Your task to perform on an android device: Add "beats solo 3" to the cart on target, then select checkout. Image 0: 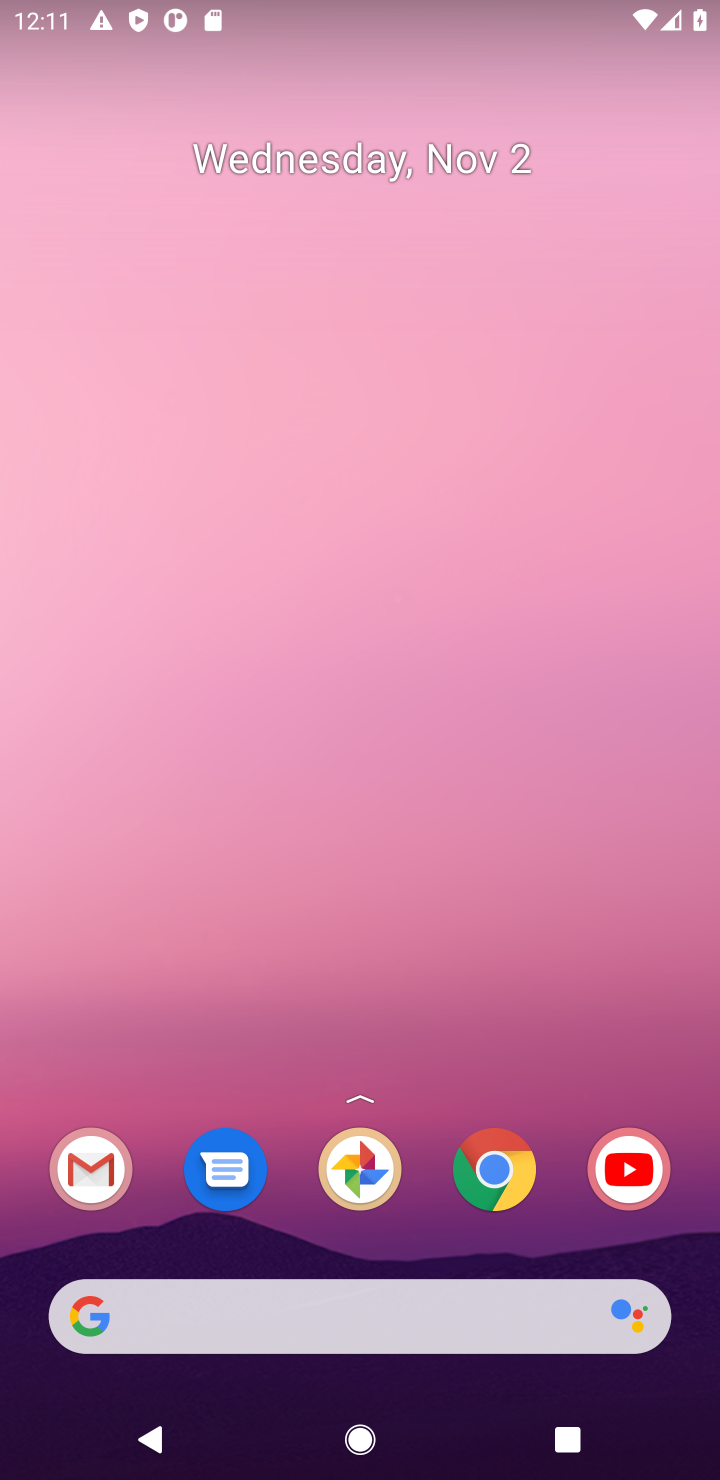
Step 0: click (503, 1166)
Your task to perform on an android device: Add "beats solo 3" to the cart on target, then select checkout. Image 1: 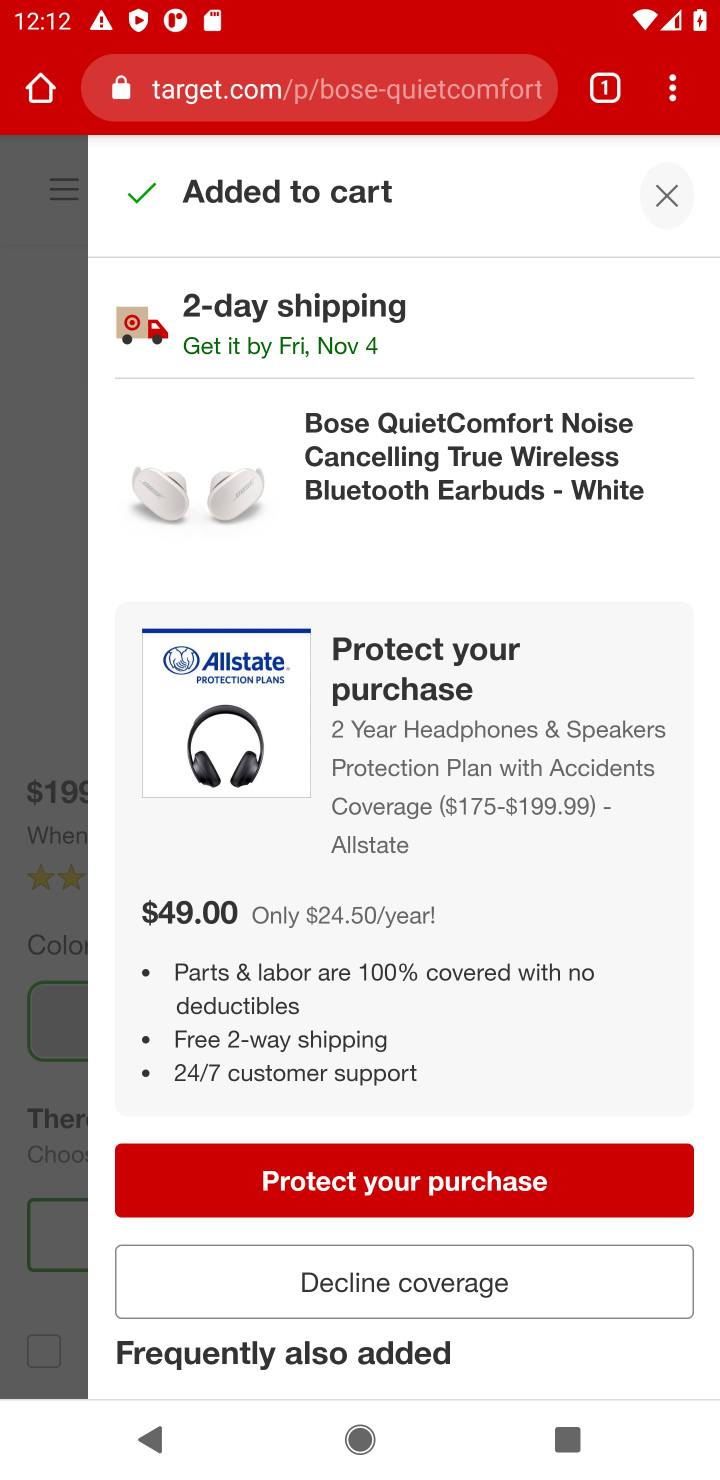
Step 1: drag from (675, 93) to (342, 200)
Your task to perform on an android device: Add "beats solo 3" to the cart on target, then select checkout. Image 2: 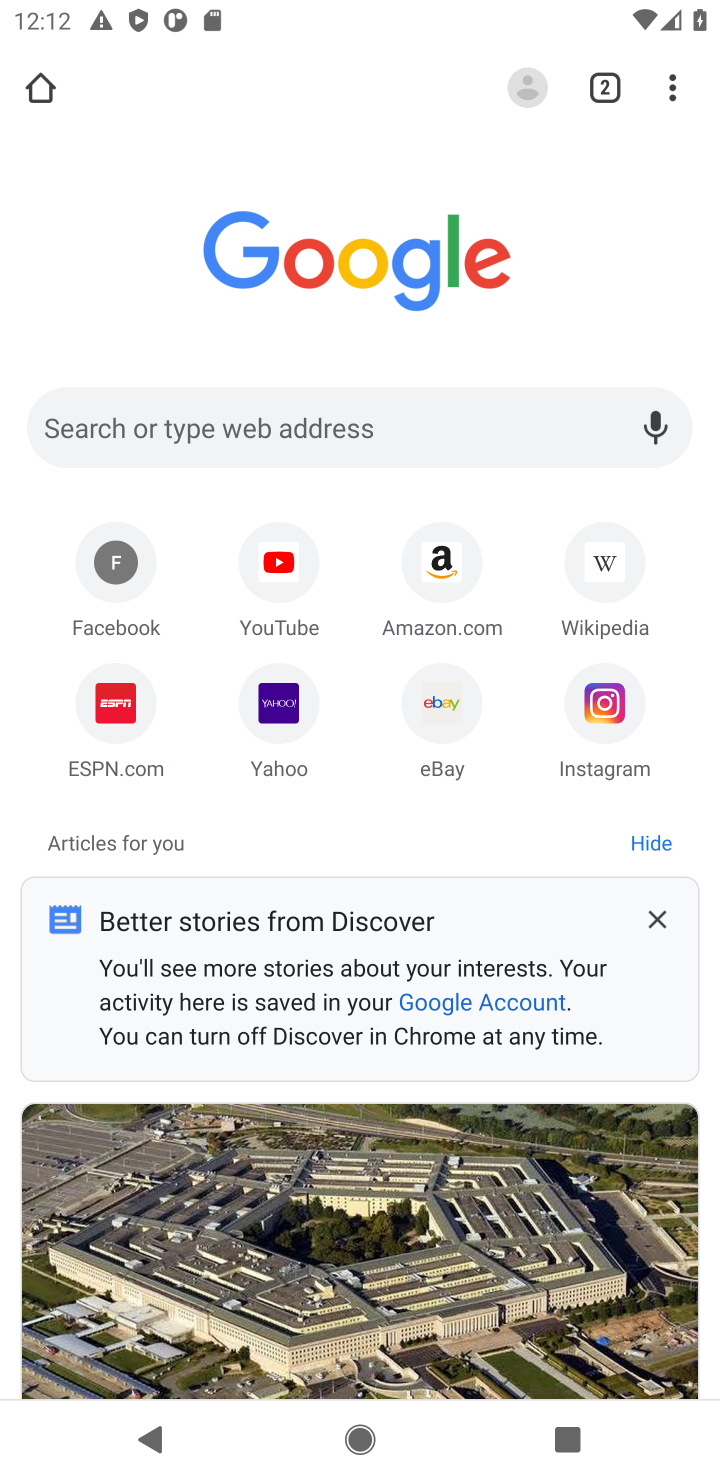
Step 2: click (299, 418)
Your task to perform on an android device: Add "beats solo 3" to the cart on target, then select checkout. Image 3: 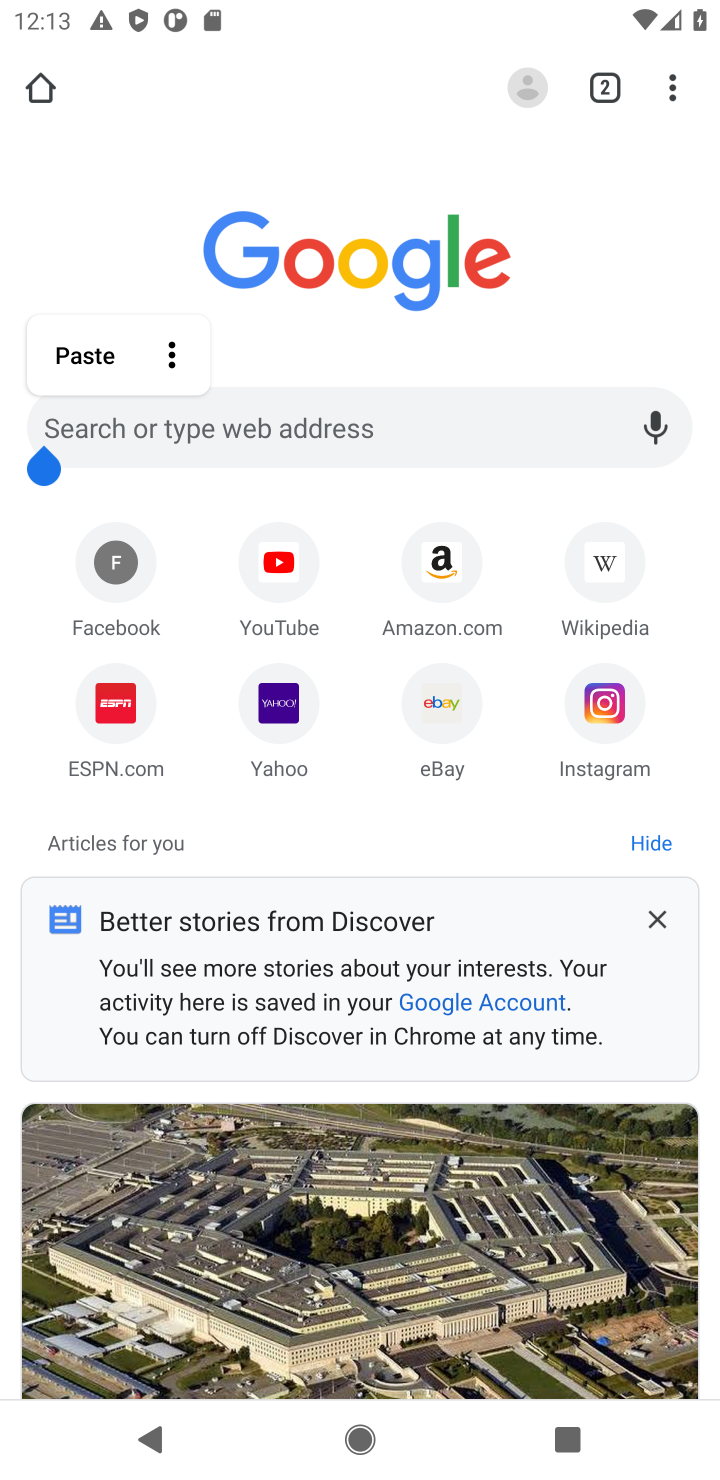
Step 3: type "target"
Your task to perform on an android device: Add "beats solo 3" to the cart on target, then select checkout. Image 4: 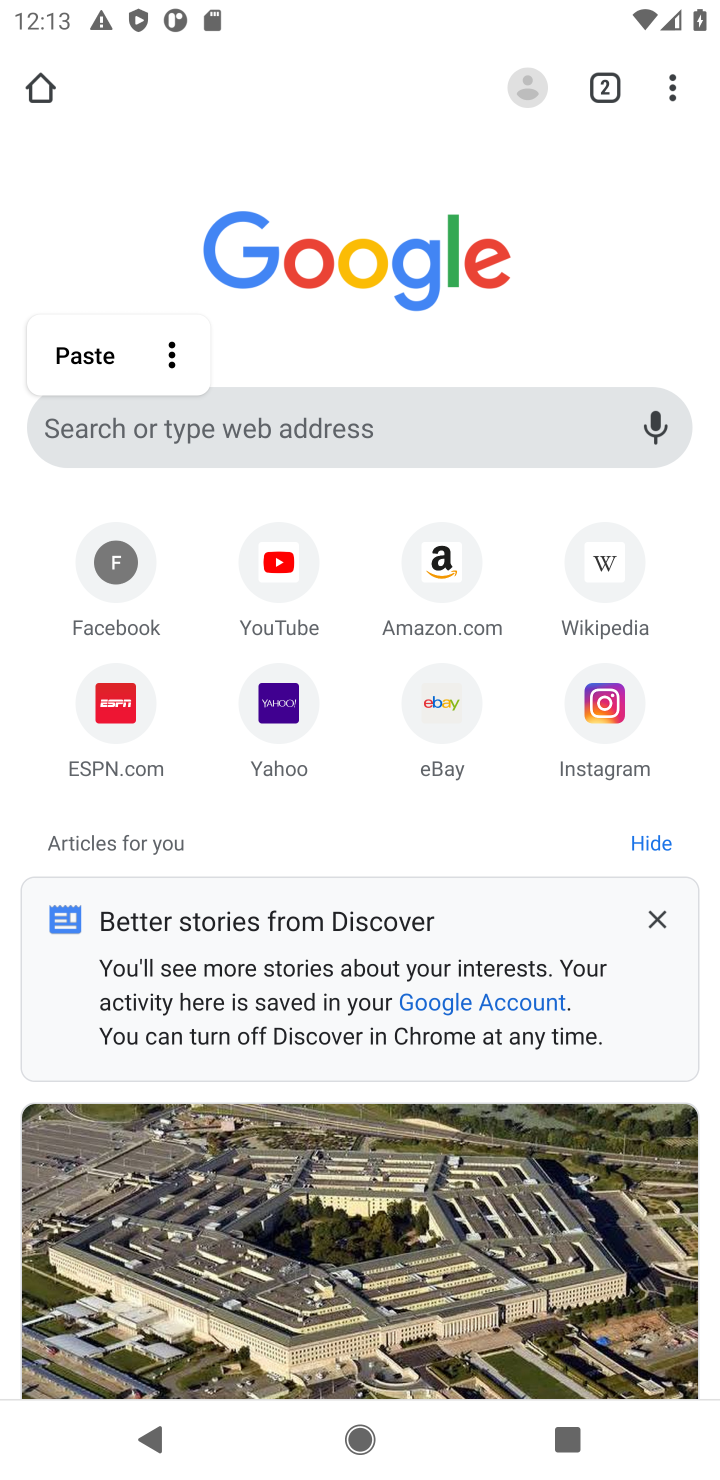
Step 4: click (218, 438)
Your task to perform on an android device: Add "beats solo 3" to the cart on target, then select checkout. Image 5: 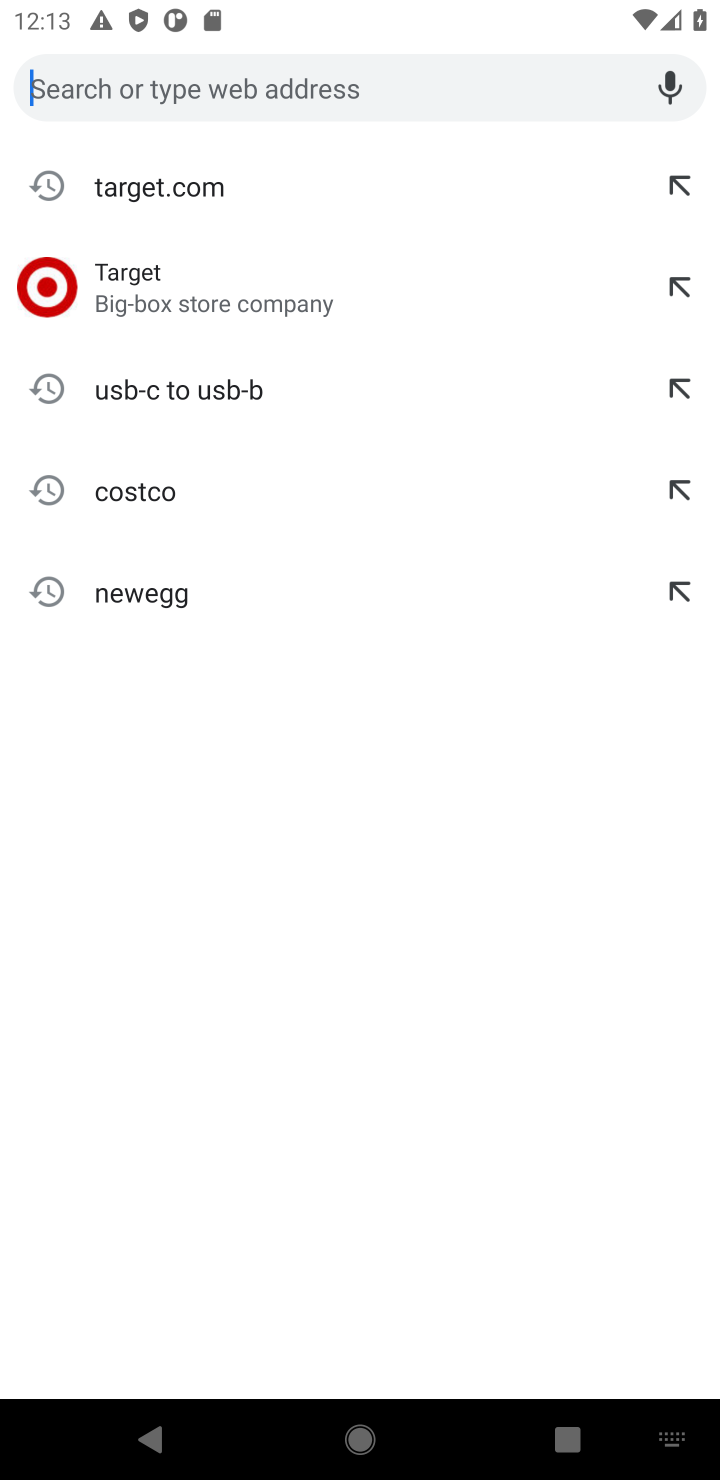
Step 5: type ""
Your task to perform on an android device: Add "beats solo 3" to the cart on target, then select checkout. Image 6: 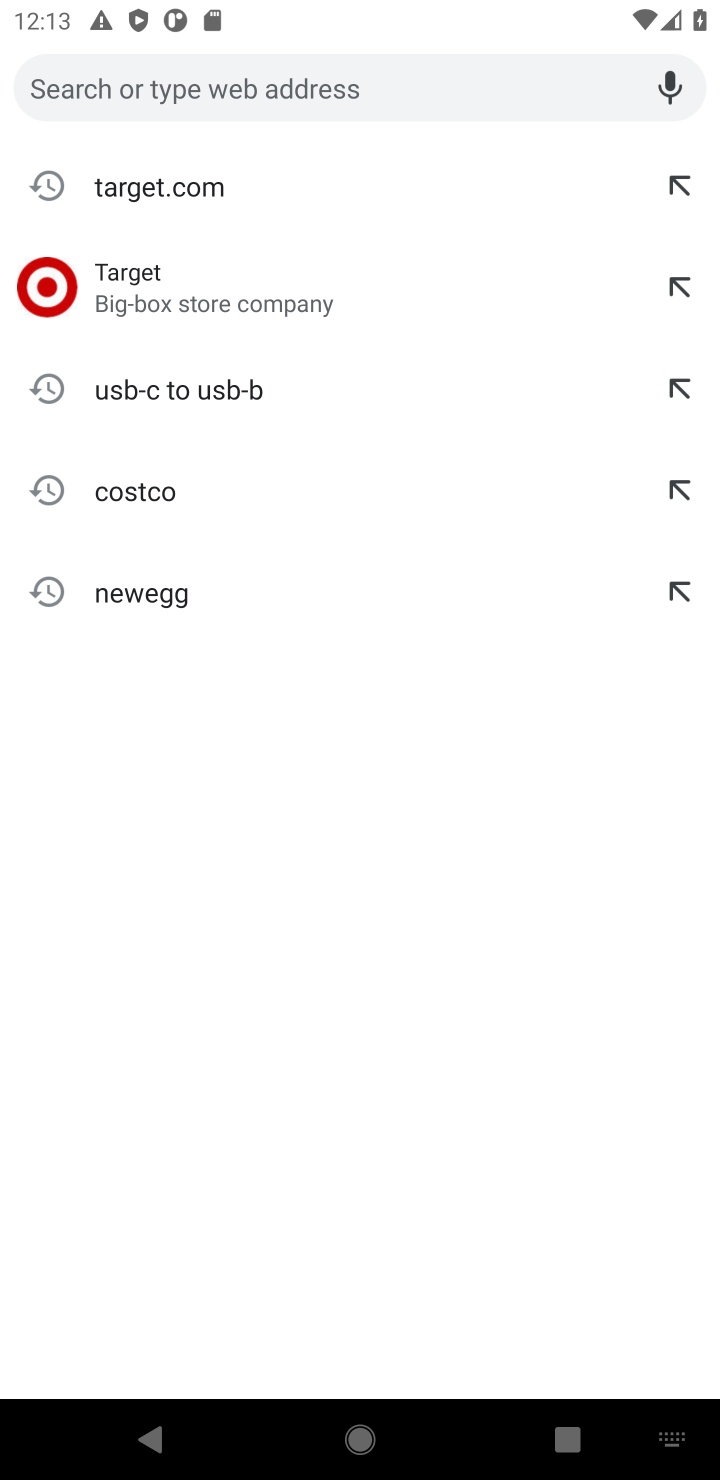
Step 6: type "target"
Your task to perform on an android device: Add "beats solo 3" to the cart on target, then select checkout. Image 7: 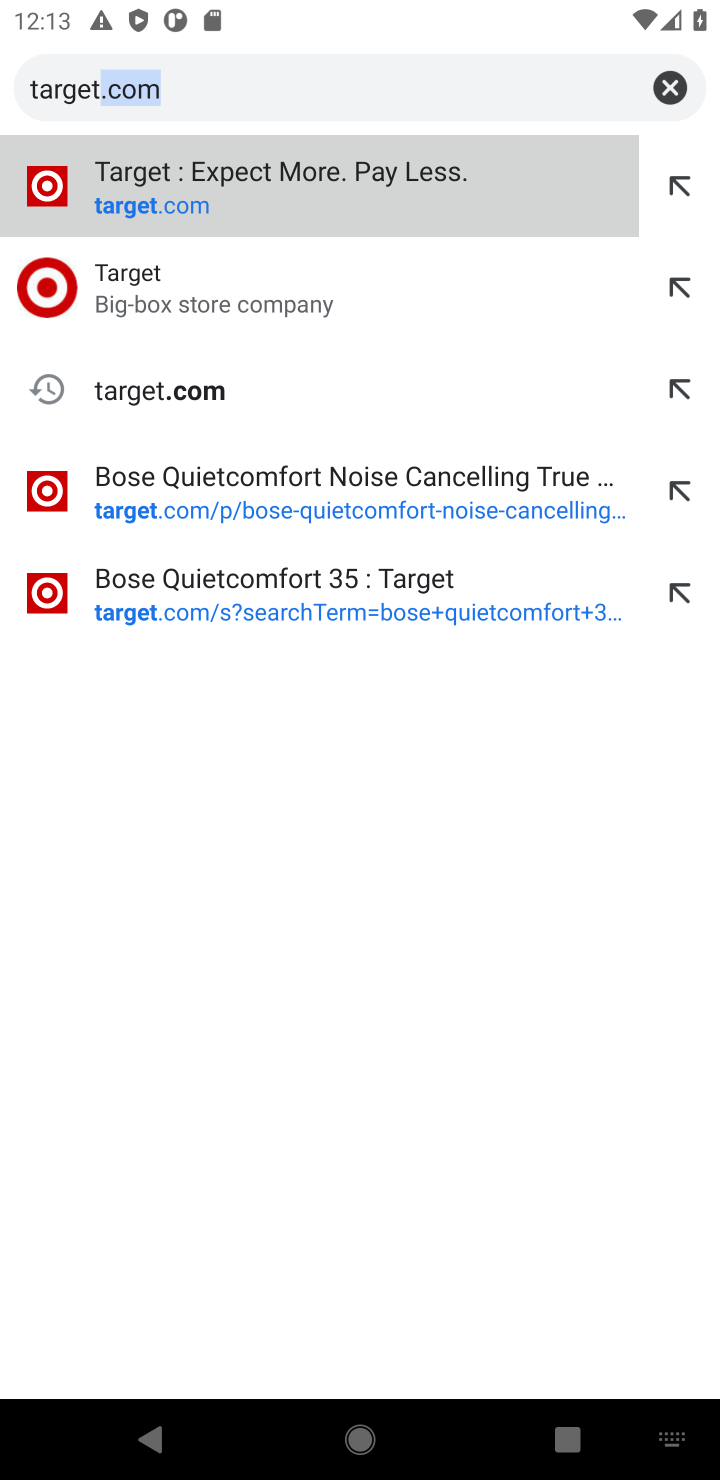
Step 7: click (291, 193)
Your task to perform on an android device: Add "beats solo 3" to the cart on target, then select checkout. Image 8: 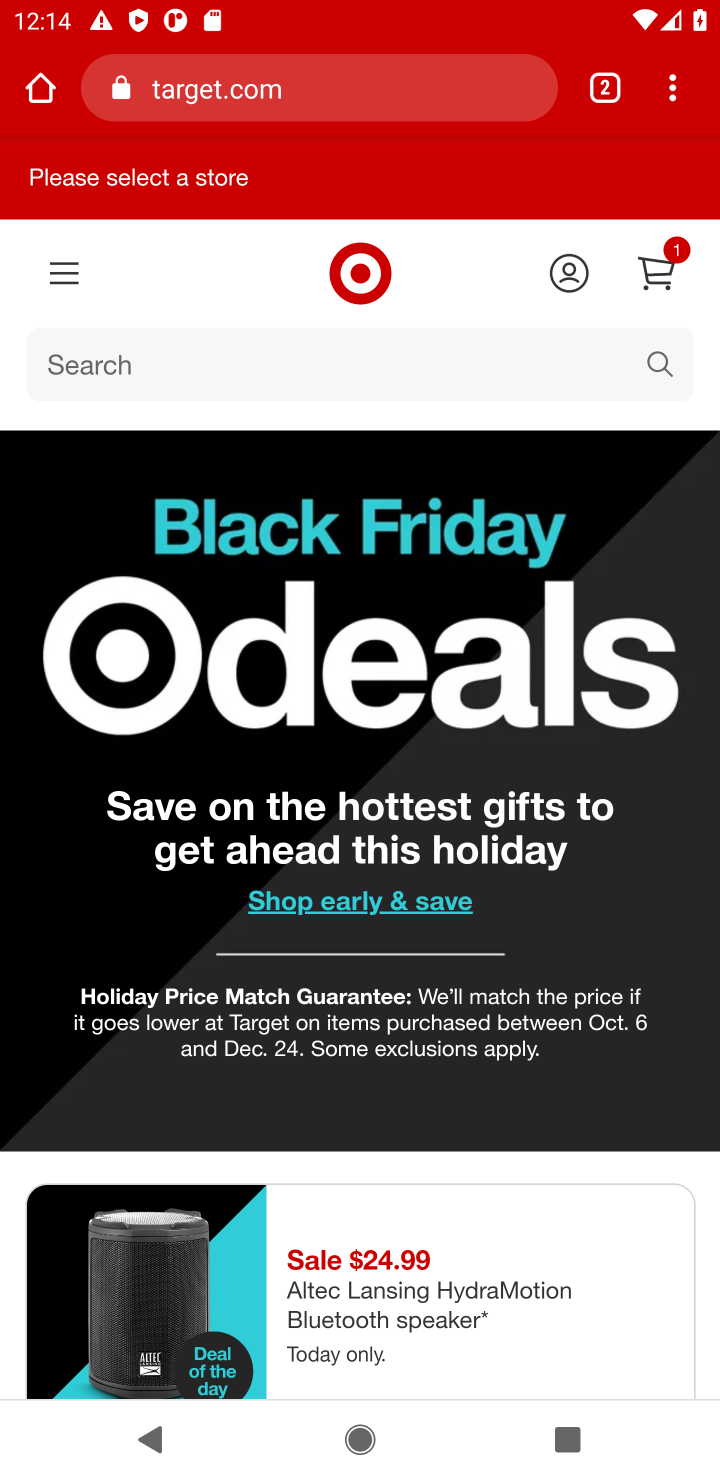
Step 8: click (240, 387)
Your task to perform on an android device: Add "beats solo 3" to the cart on target, then select checkout. Image 9: 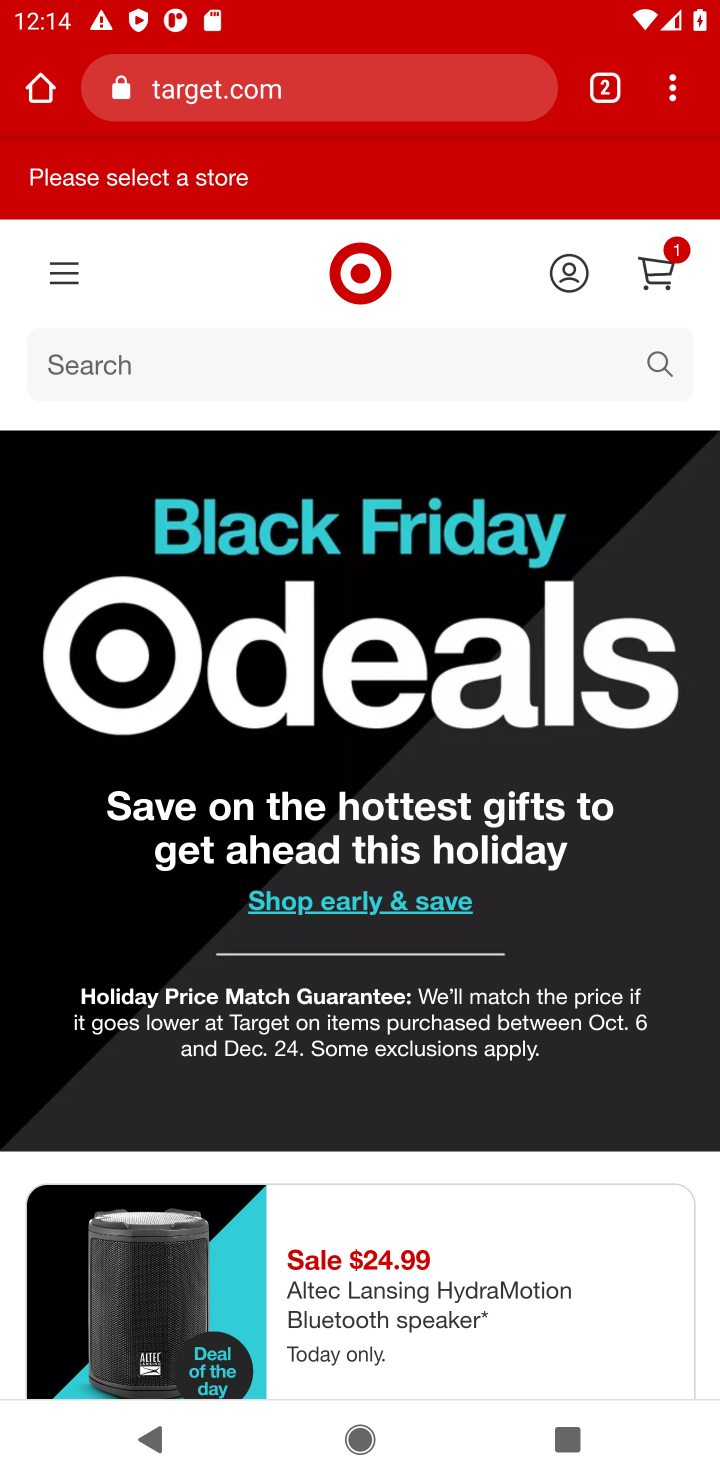
Step 9: click (253, 389)
Your task to perform on an android device: Add "beats solo 3" to the cart on target, then select checkout. Image 10: 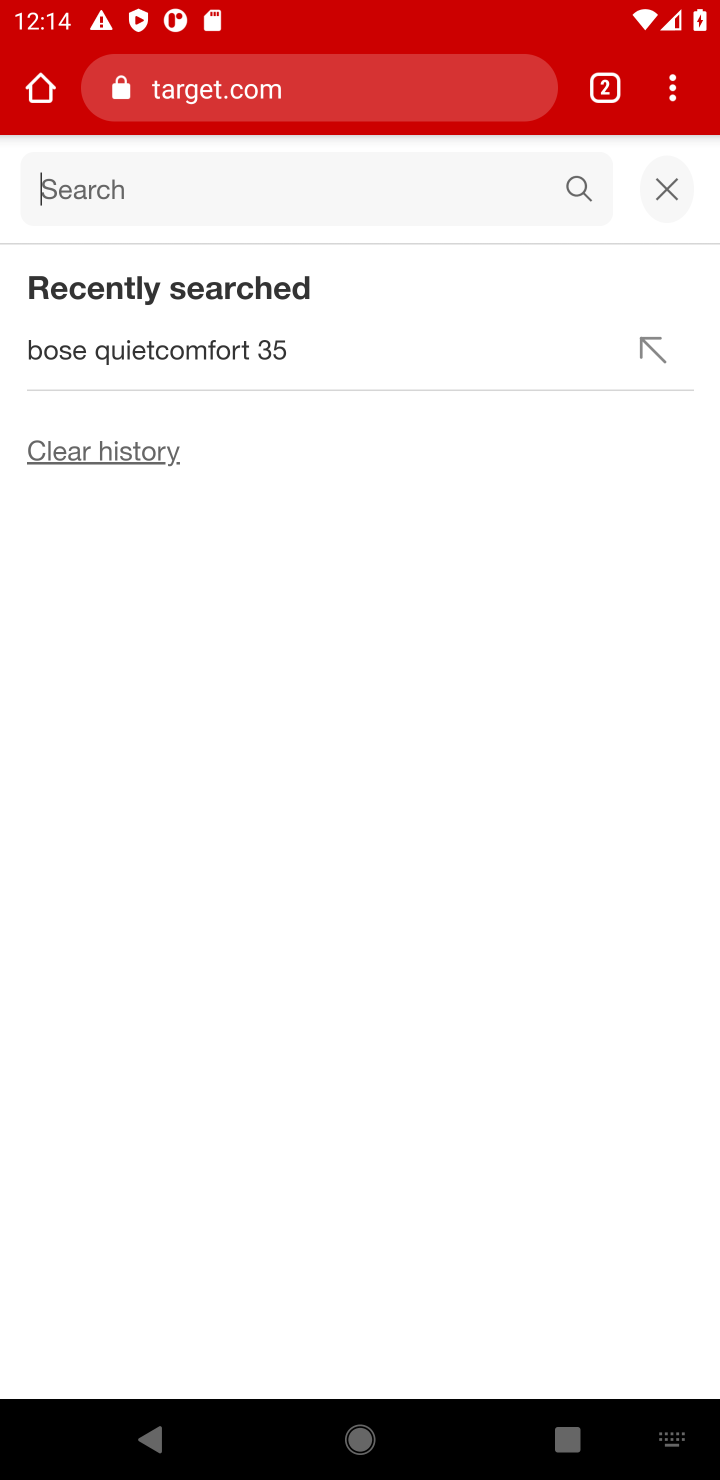
Step 10: type "beats solo 3"
Your task to perform on an android device: Add "beats solo 3" to the cart on target, then select checkout. Image 11: 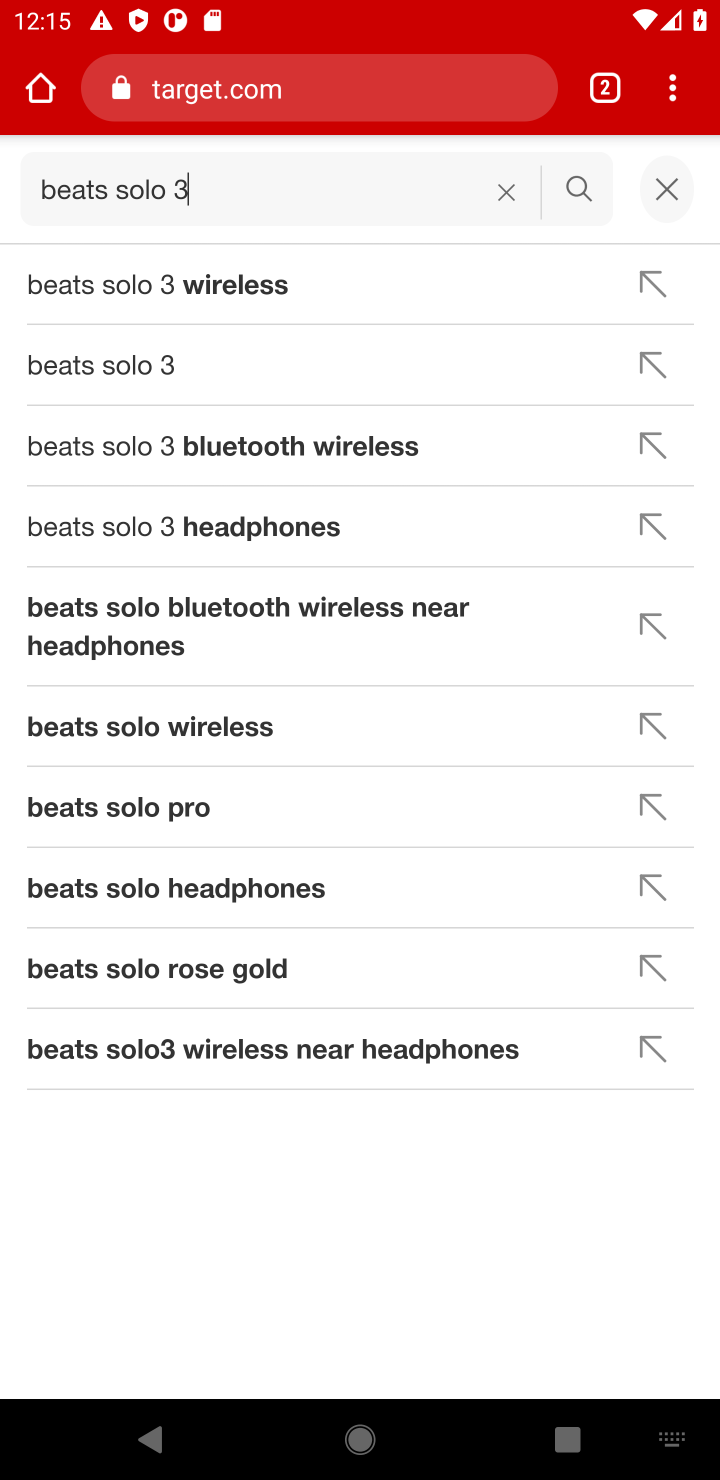
Step 11: click (128, 358)
Your task to perform on an android device: Add "beats solo 3" to the cart on target, then select checkout. Image 12: 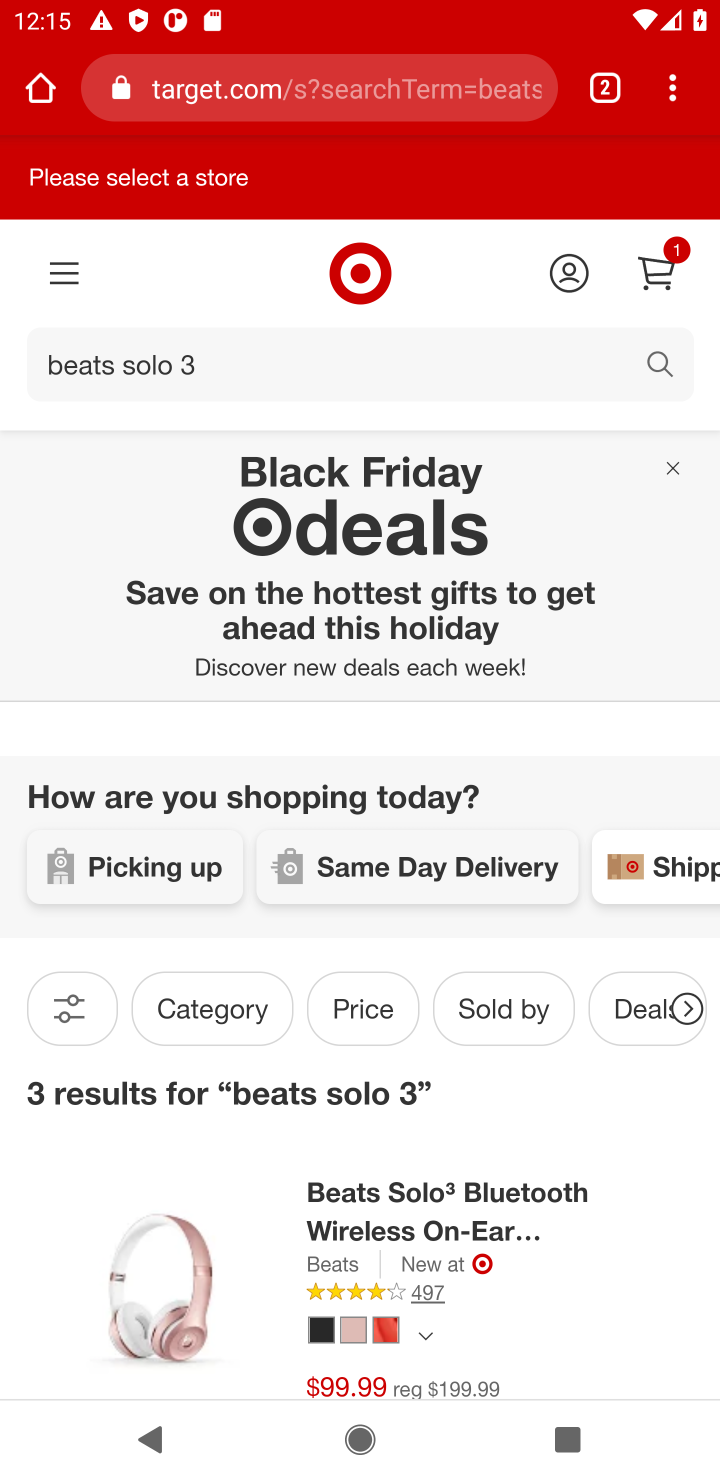
Step 12: drag from (347, 1176) to (303, 637)
Your task to perform on an android device: Add "beats solo 3" to the cart on target, then select checkout. Image 13: 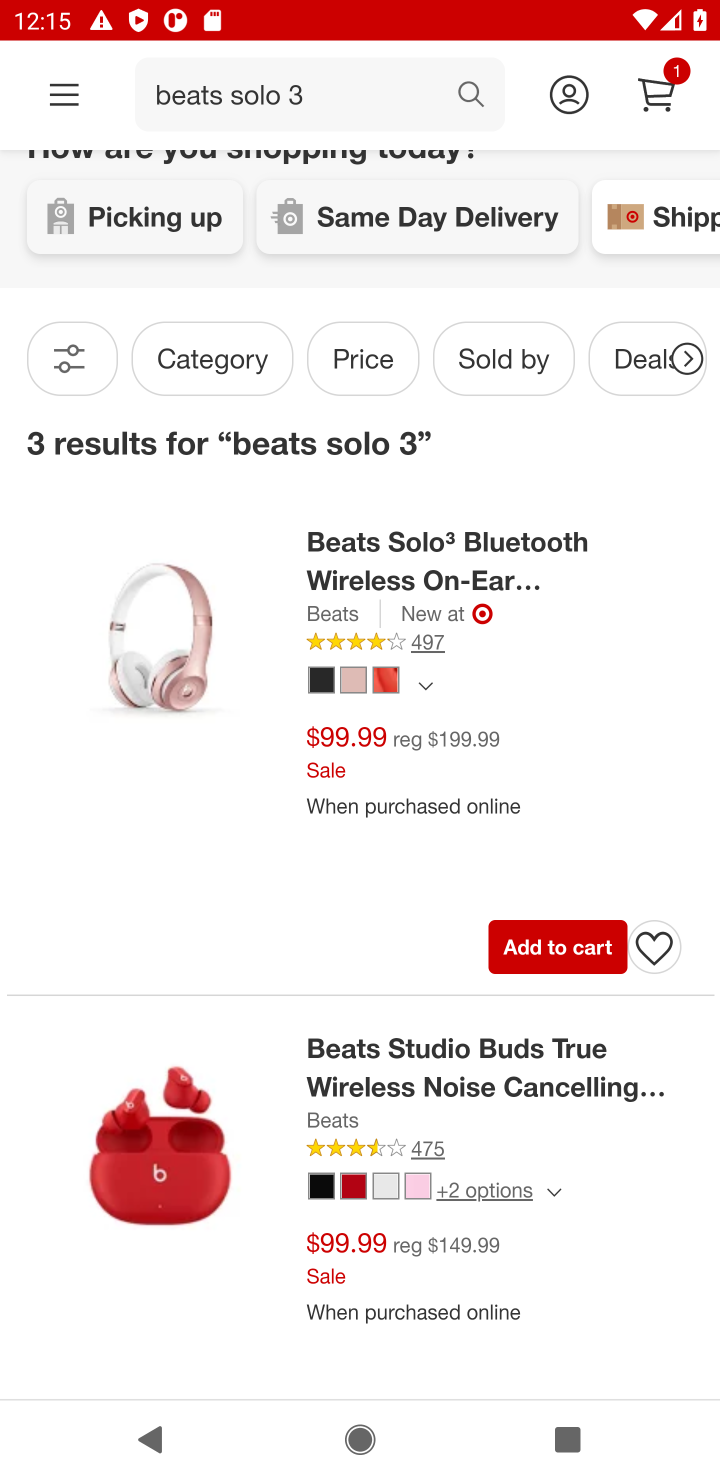
Step 13: click (585, 946)
Your task to perform on an android device: Add "beats solo 3" to the cart on target, then select checkout. Image 14: 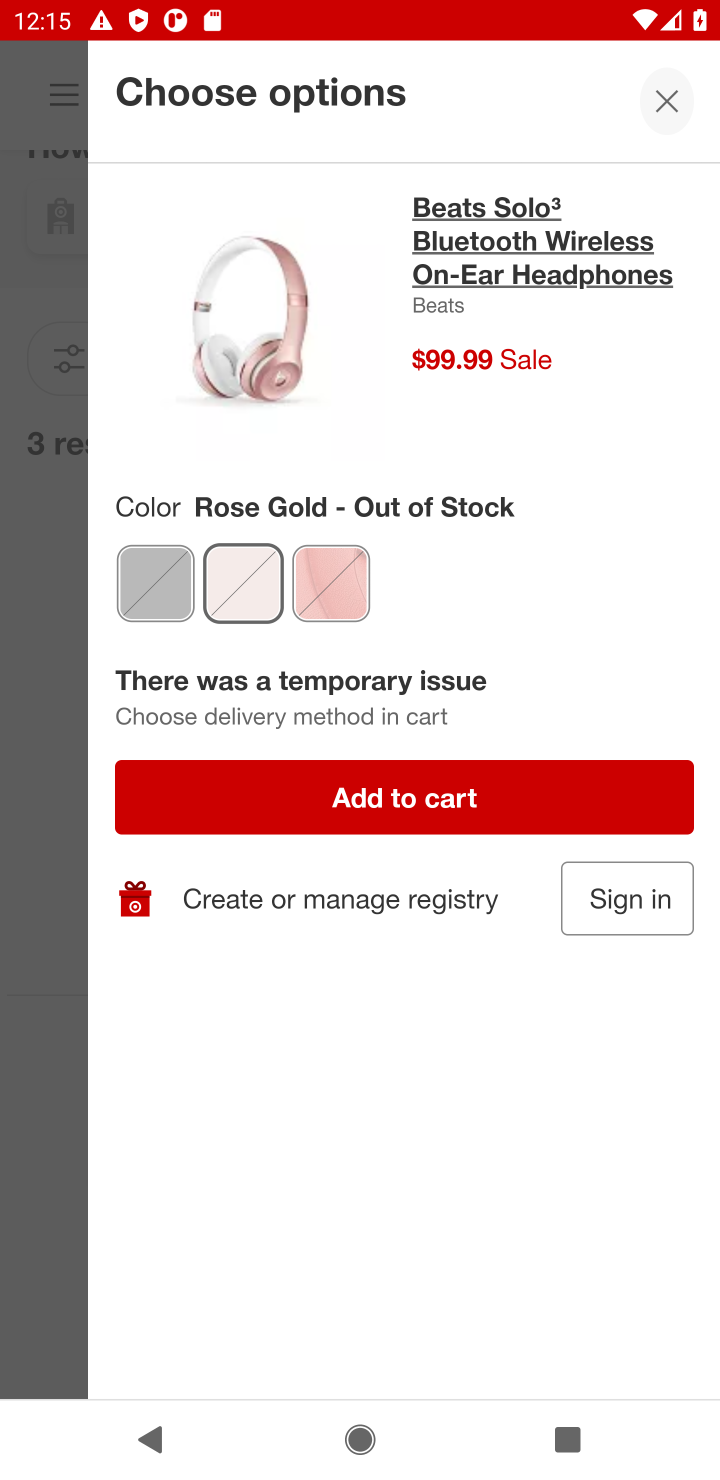
Step 14: click (461, 807)
Your task to perform on an android device: Add "beats solo 3" to the cart on target, then select checkout. Image 15: 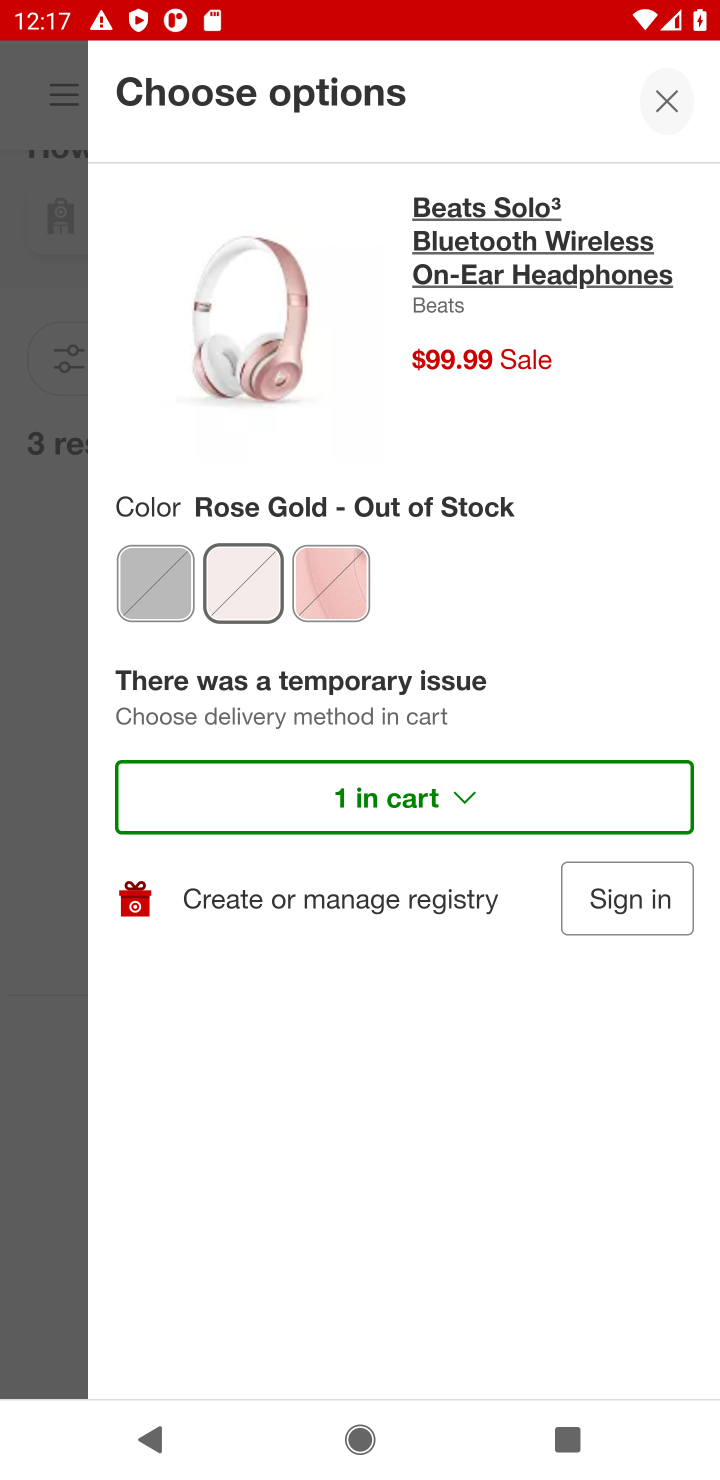
Step 15: click (636, 100)
Your task to perform on an android device: Add "beats solo 3" to the cart on target, then select checkout. Image 16: 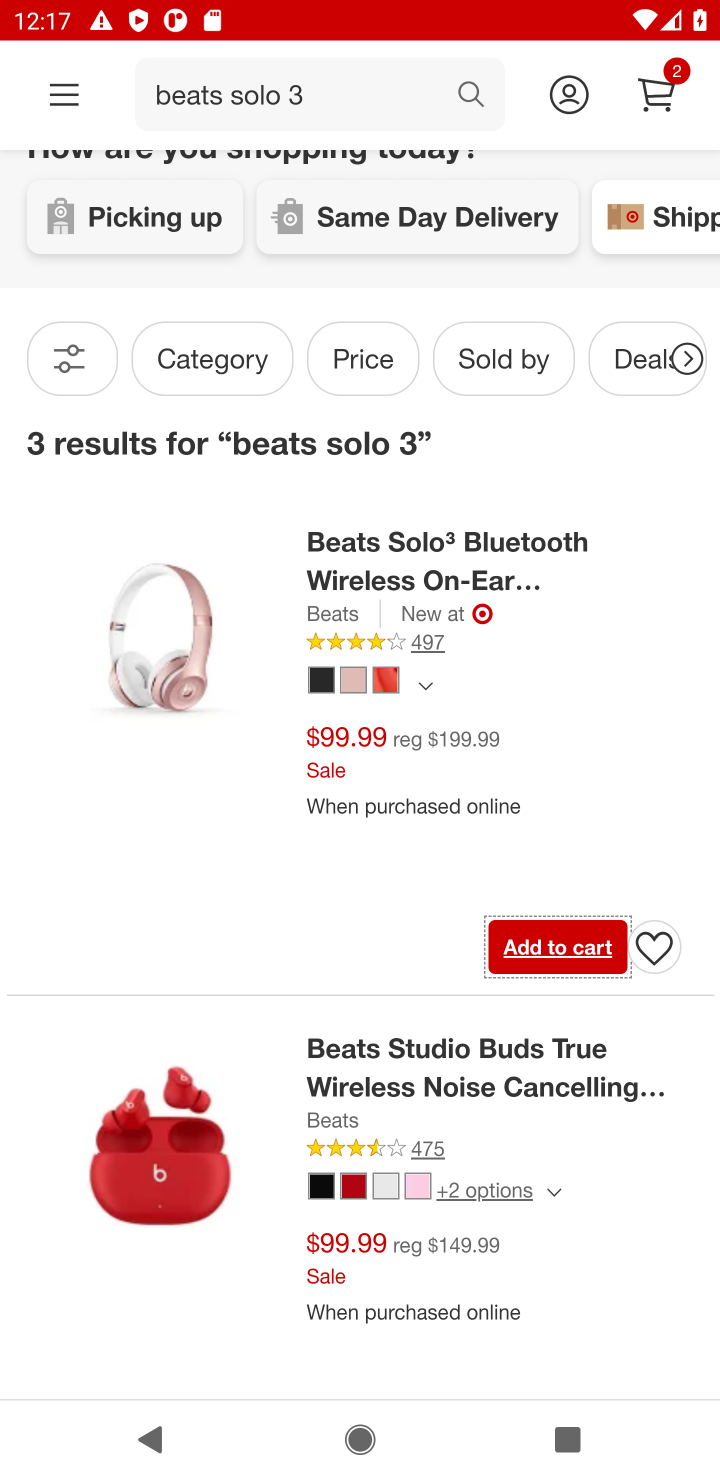
Step 16: click (652, 55)
Your task to perform on an android device: Add "beats solo 3" to the cart on target, then select checkout. Image 17: 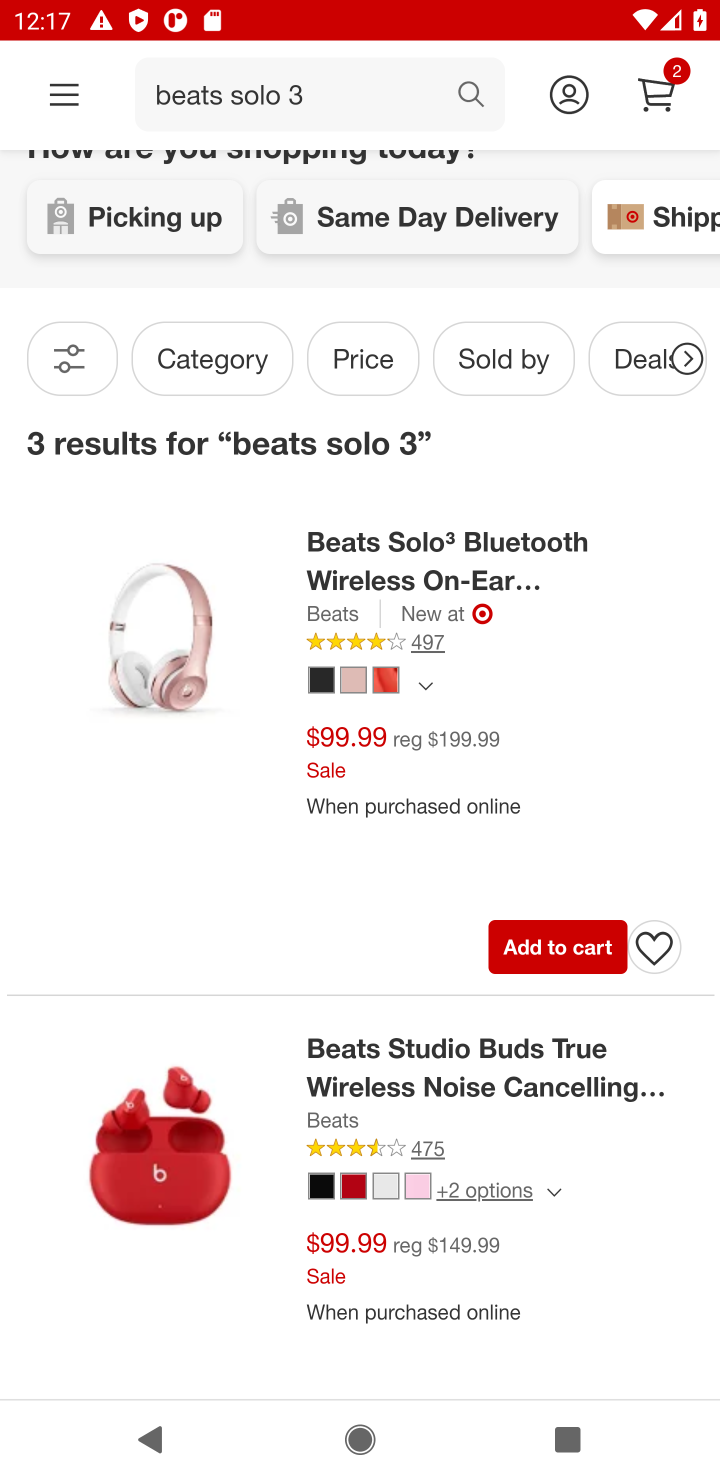
Step 17: task complete